Your task to perform on an android device: Do I have any events tomorrow? Image 0: 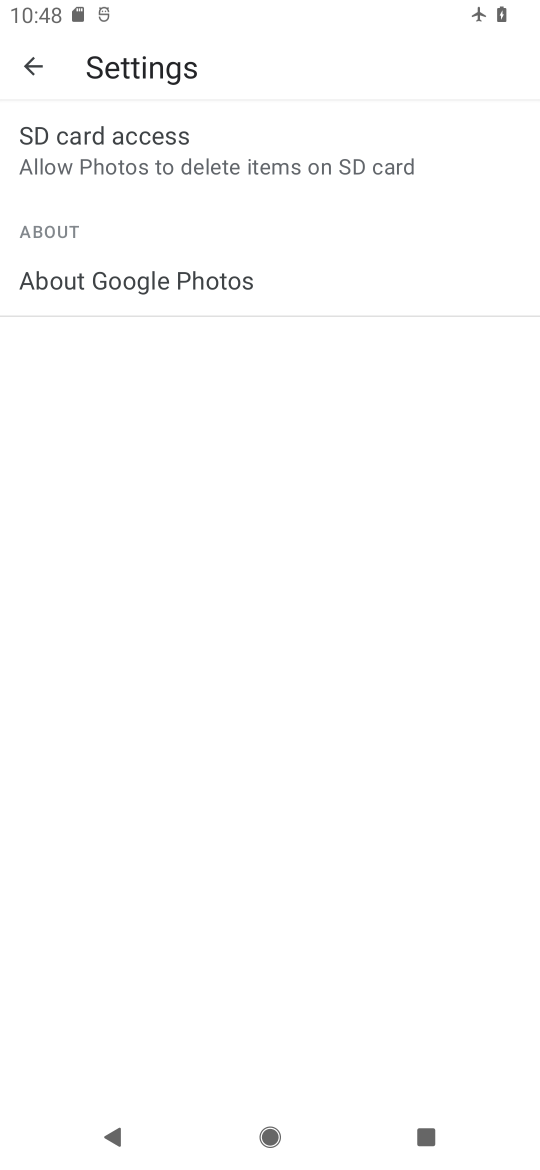
Step 0: press home button
Your task to perform on an android device: Do I have any events tomorrow? Image 1: 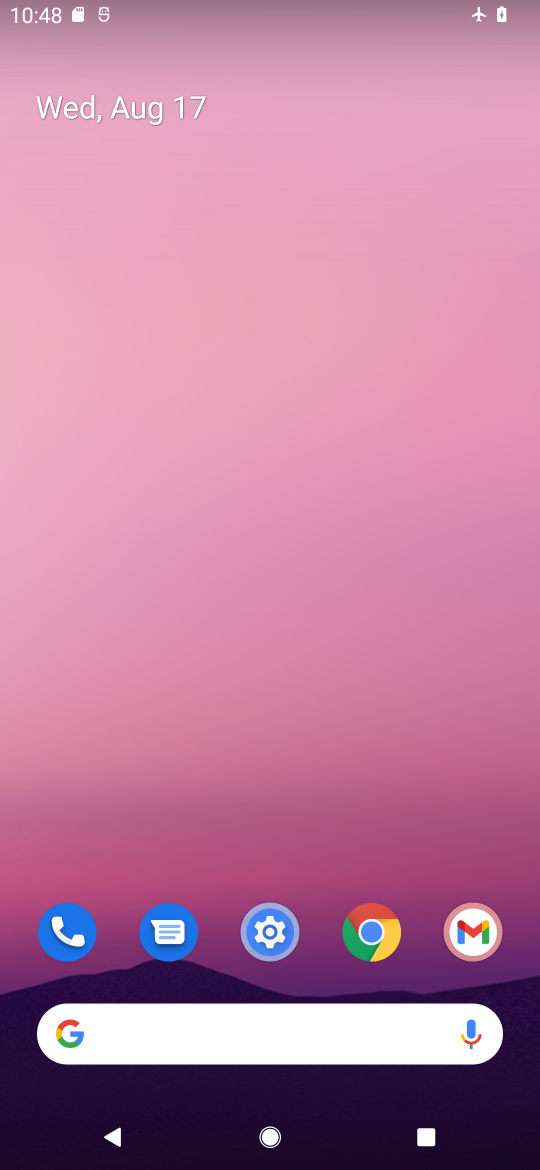
Step 1: drag from (312, 793) to (312, 108)
Your task to perform on an android device: Do I have any events tomorrow? Image 2: 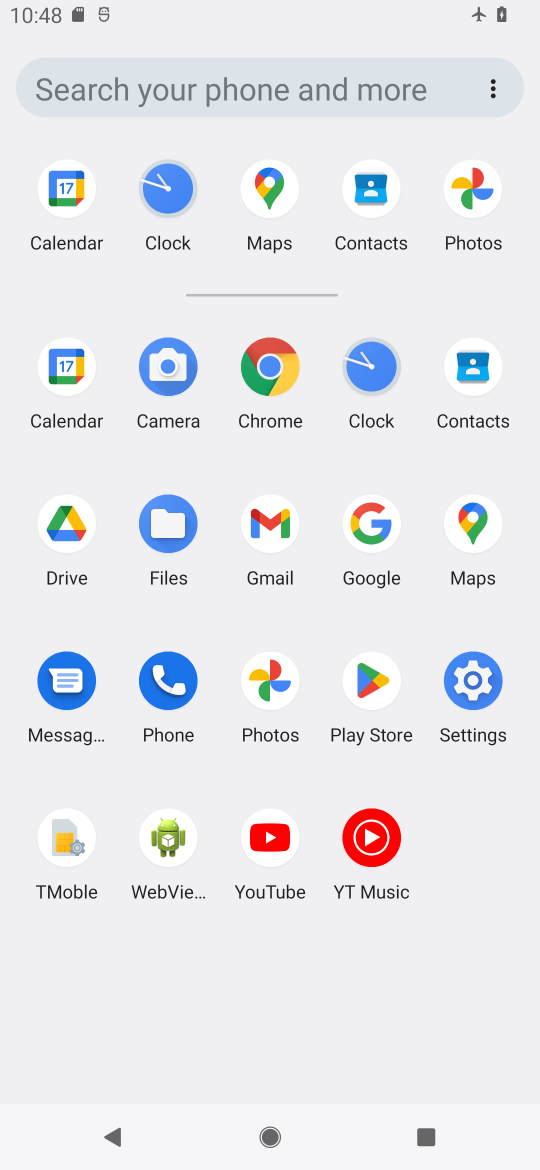
Step 2: click (58, 374)
Your task to perform on an android device: Do I have any events tomorrow? Image 3: 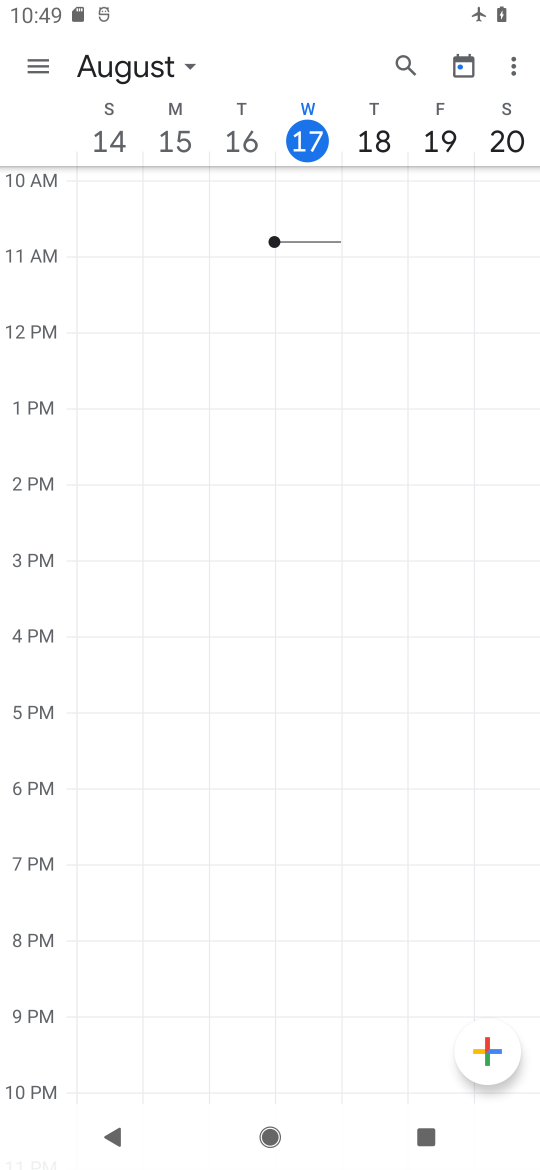
Step 3: click (372, 141)
Your task to perform on an android device: Do I have any events tomorrow? Image 4: 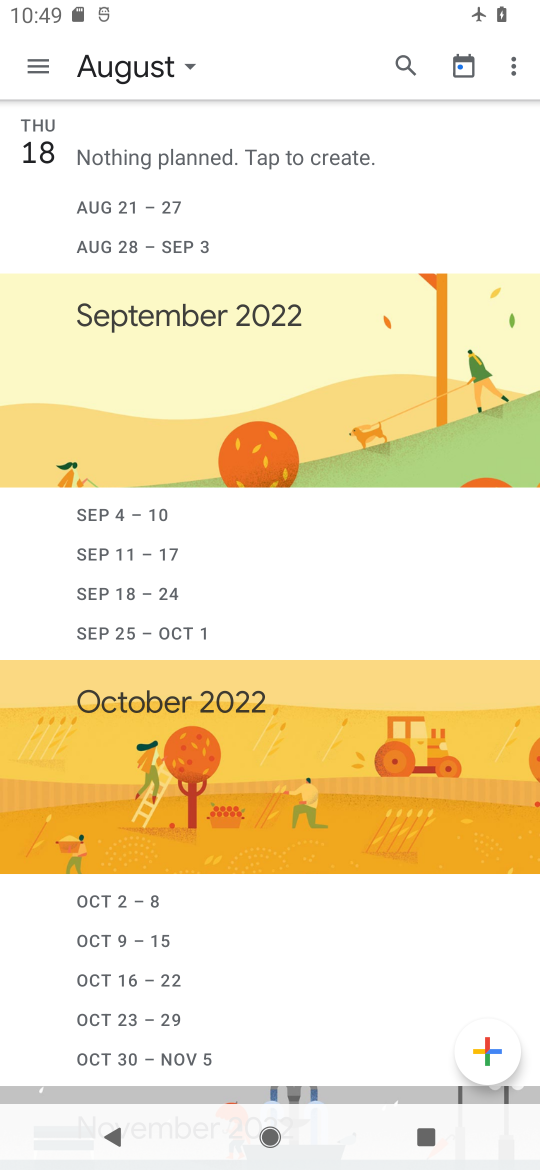
Step 4: task complete